Your task to perform on an android device: see creations saved in the google photos Image 0: 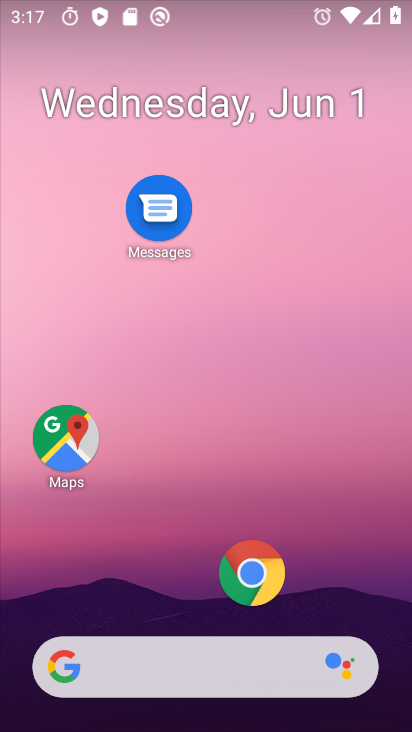
Step 0: drag from (183, 600) to (183, 337)
Your task to perform on an android device: see creations saved in the google photos Image 1: 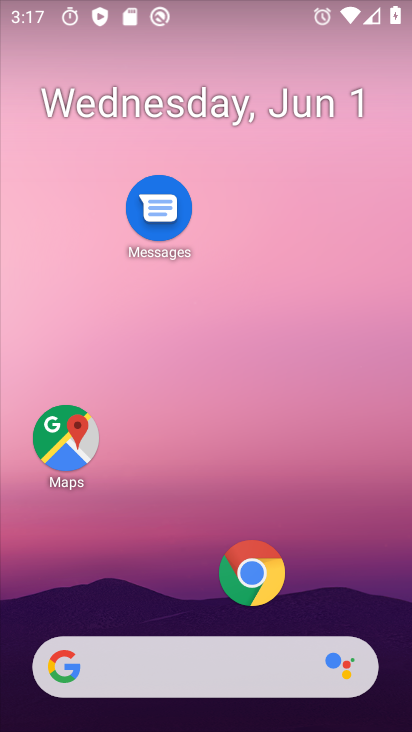
Step 1: drag from (184, 618) to (179, 186)
Your task to perform on an android device: see creations saved in the google photos Image 2: 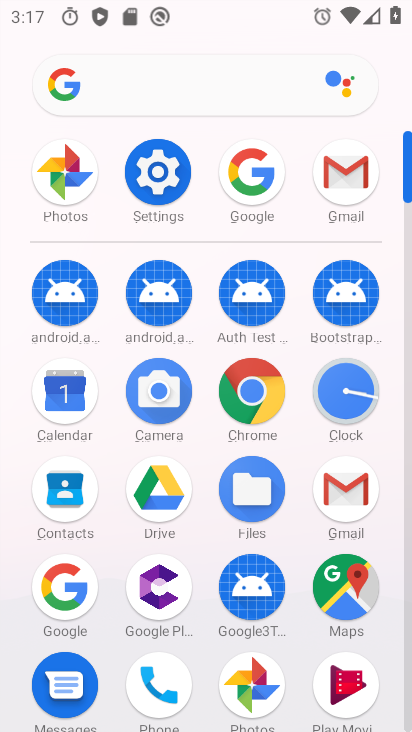
Step 2: click (79, 190)
Your task to perform on an android device: see creations saved in the google photos Image 3: 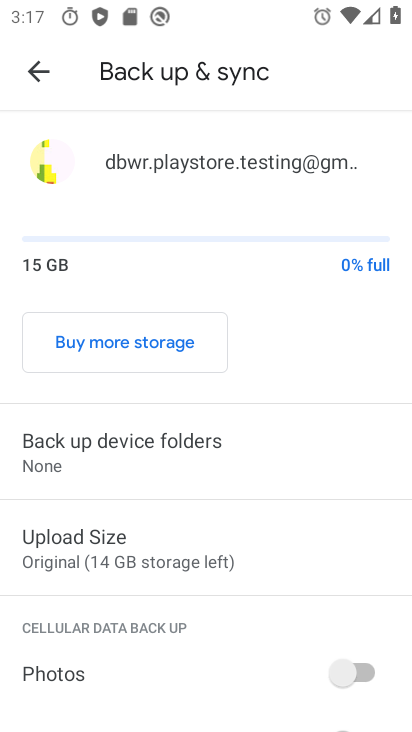
Step 3: click (44, 72)
Your task to perform on an android device: see creations saved in the google photos Image 4: 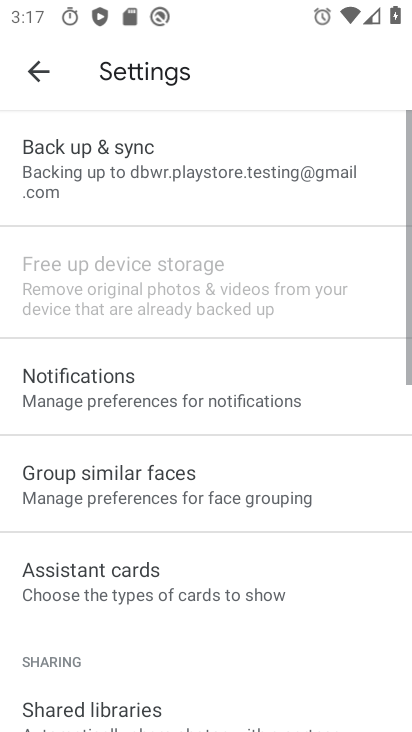
Step 4: click (44, 72)
Your task to perform on an android device: see creations saved in the google photos Image 5: 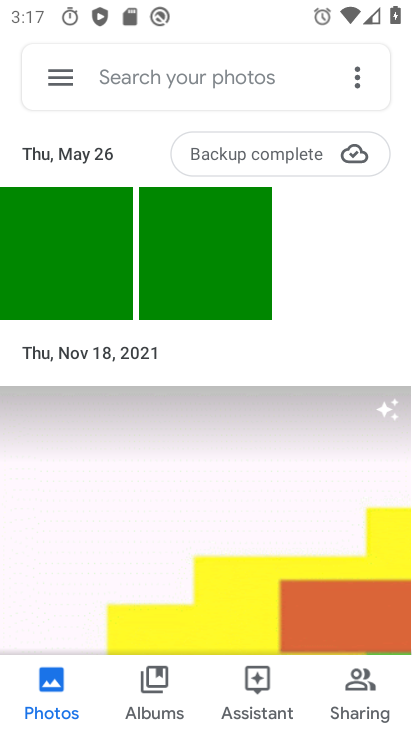
Step 5: click (128, 85)
Your task to perform on an android device: see creations saved in the google photos Image 6: 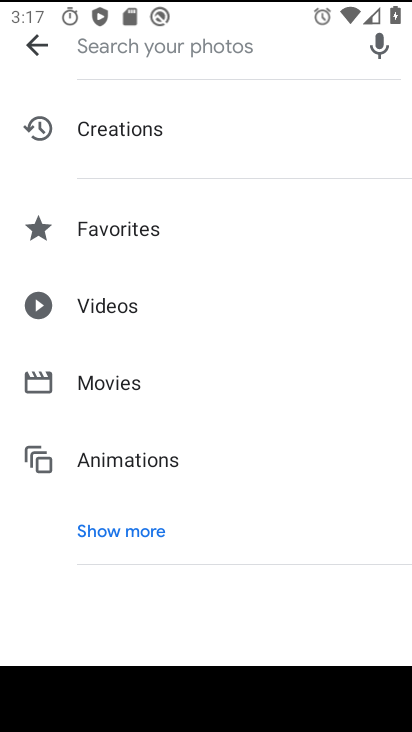
Step 6: click (108, 140)
Your task to perform on an android device: see creations saved in the google photos Image 7: 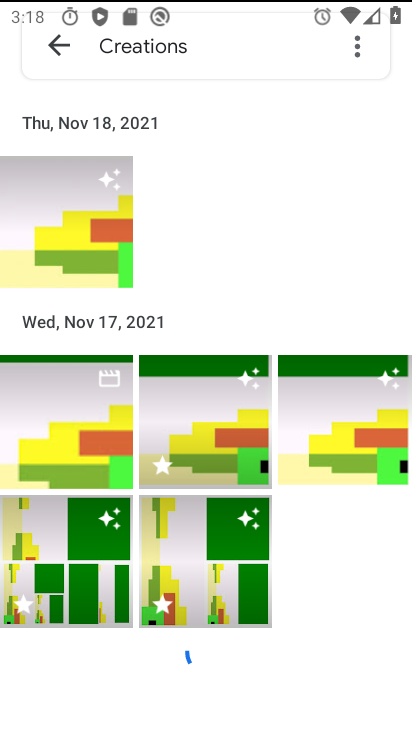
Step 7: task complete